Your task to perform on an android device: Go to calendar. Show me events next week Image 0: 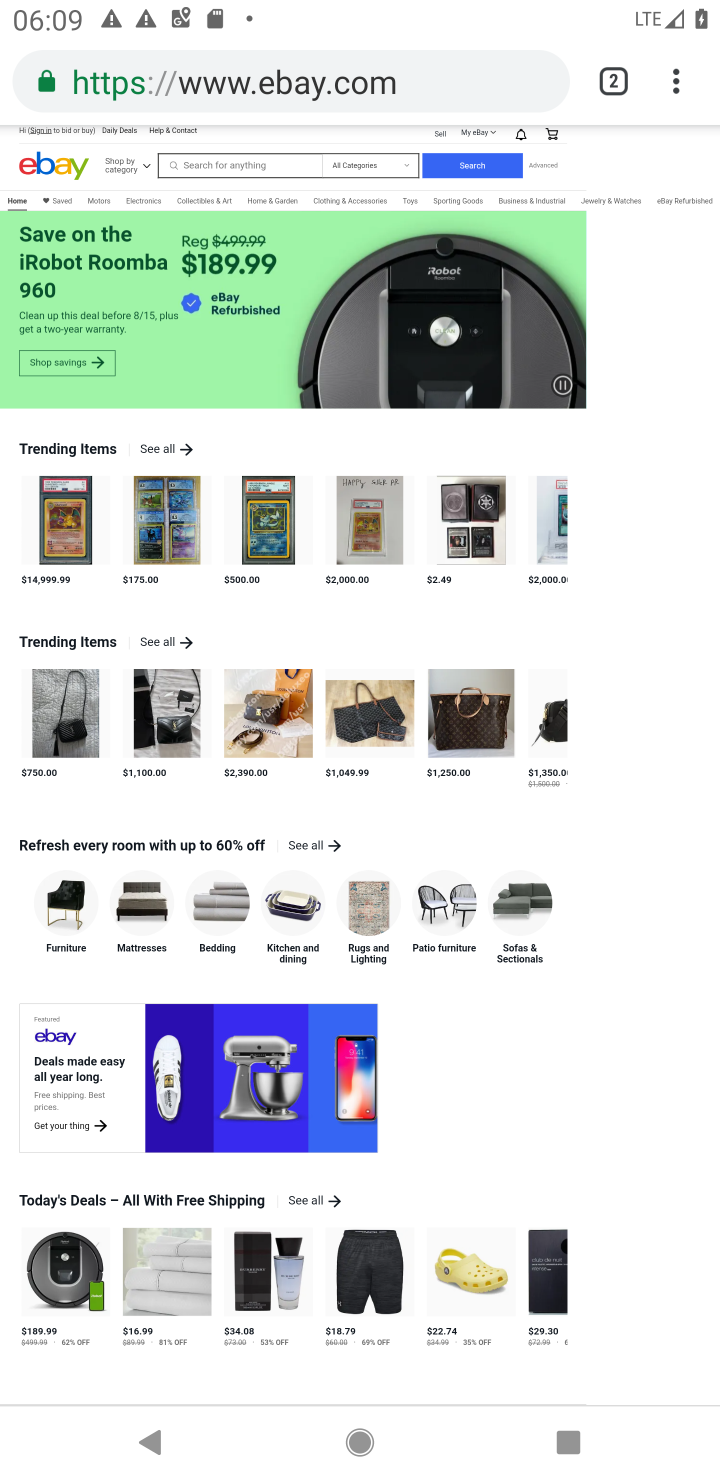
Step 0: press home button
Your task to perform on an android device: Go to calendar. Show me events next week Image 1: 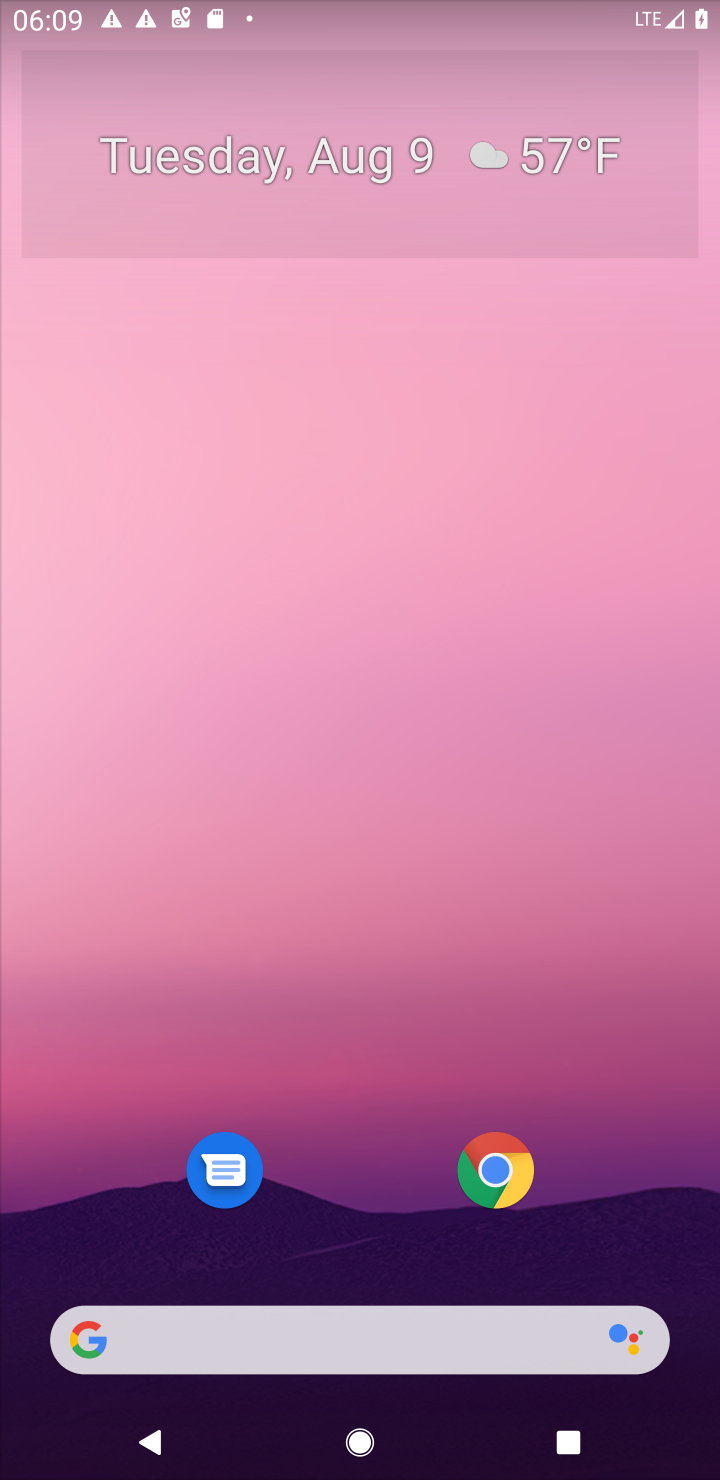
Step 1: drag from (341, 940) to (362, 30)
Your task to perform on an android device: Go to calendar. Show me events next week Image 2: 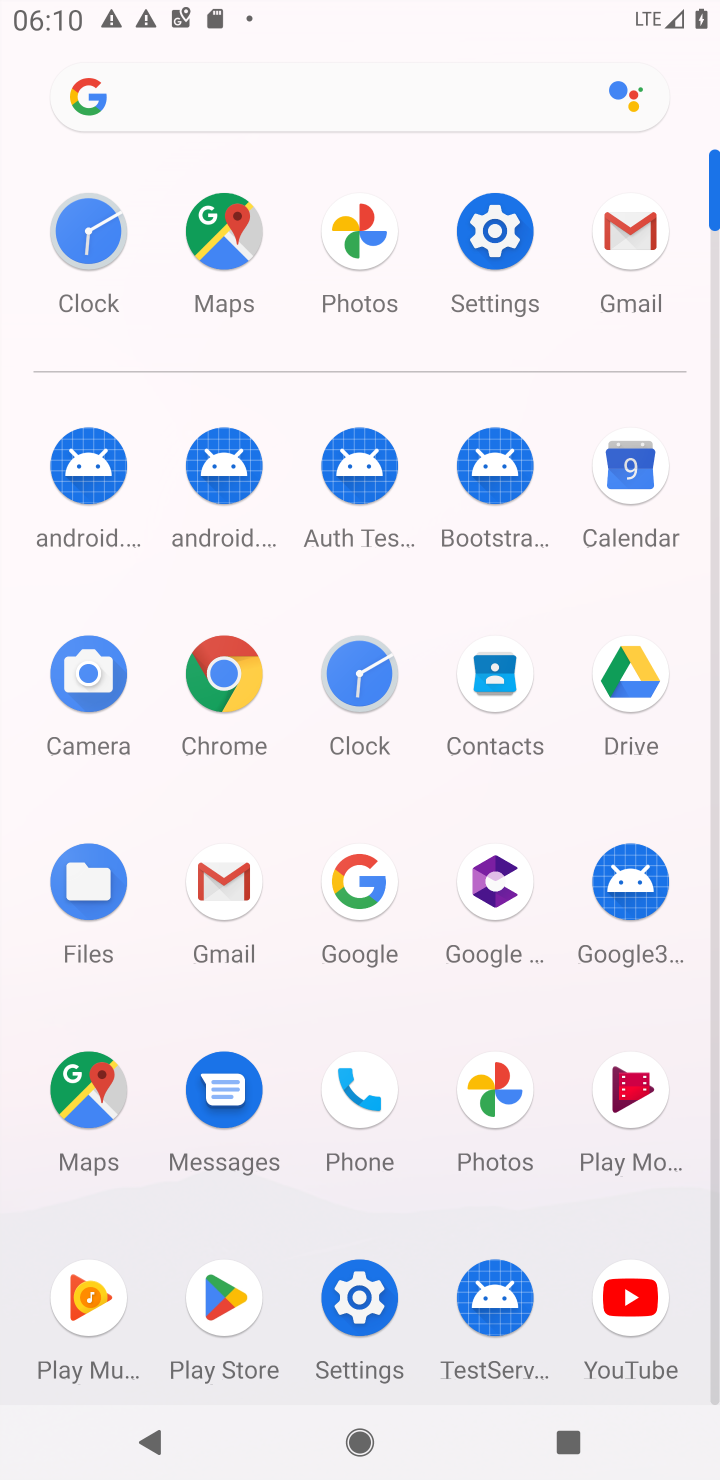
Step 2: click (636, 460)
Your task to perform on an android device: Go to calendar. Show me events next week Image 3: 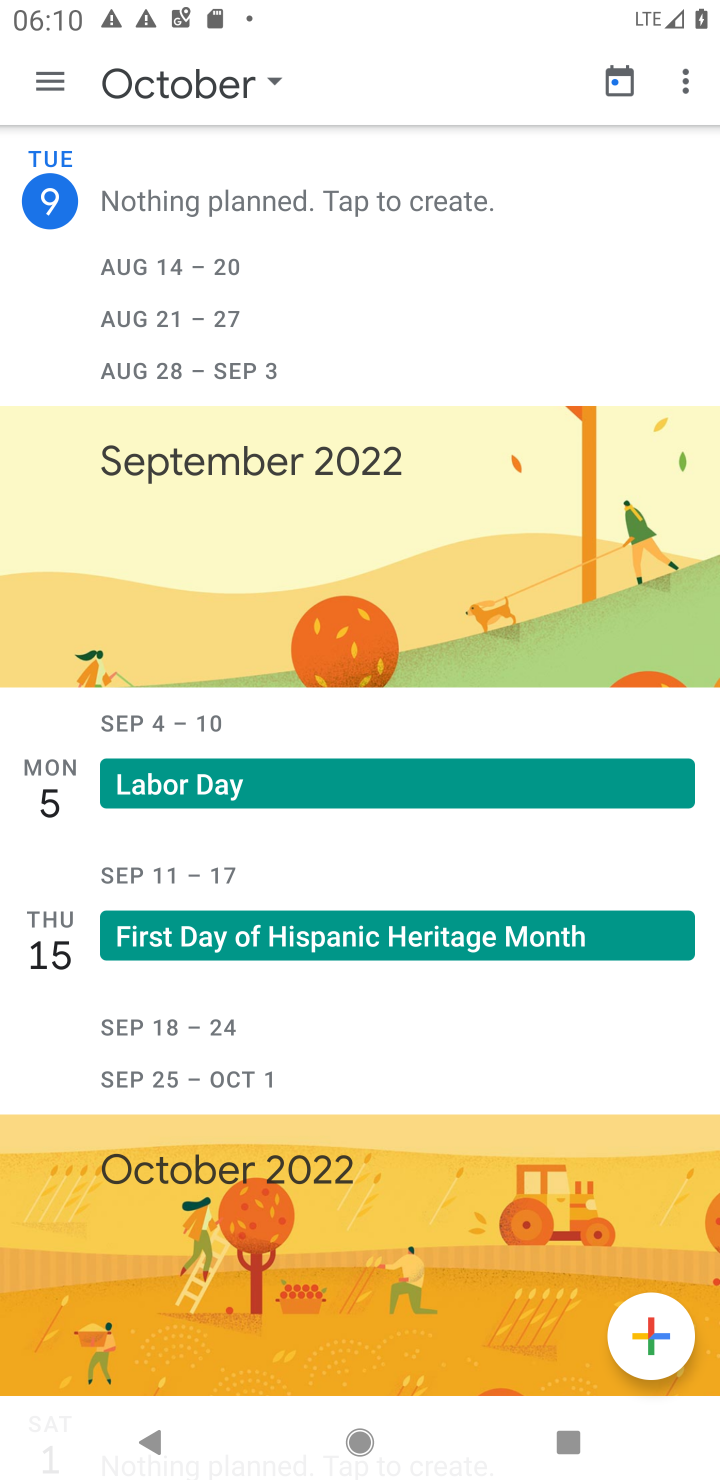
Step 3: click (241, 96)
Your task to perform on an android device: Go to calendar. Show me events next week Image 4: 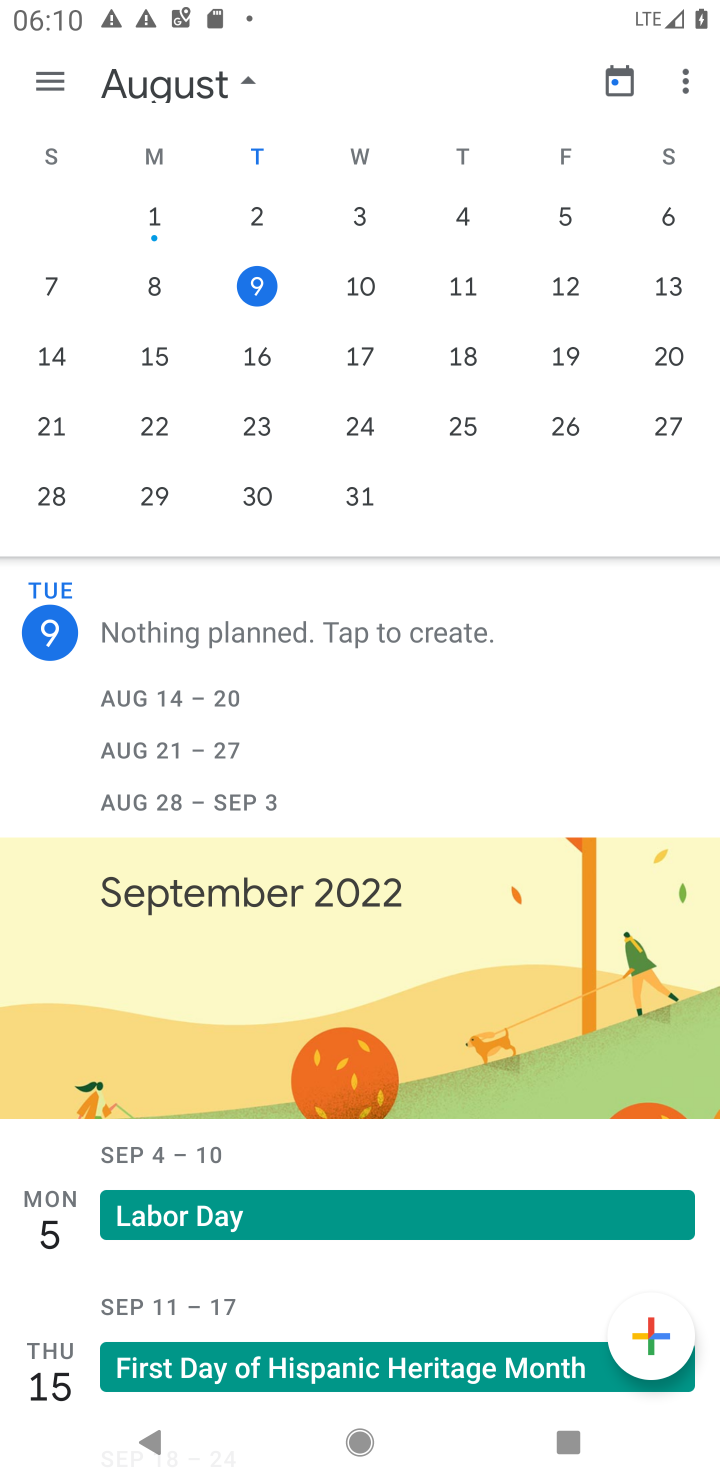
Step 4: click (50, 68)
Your task to perform on an android device: Go to calendar. Show me events next week Image 5: 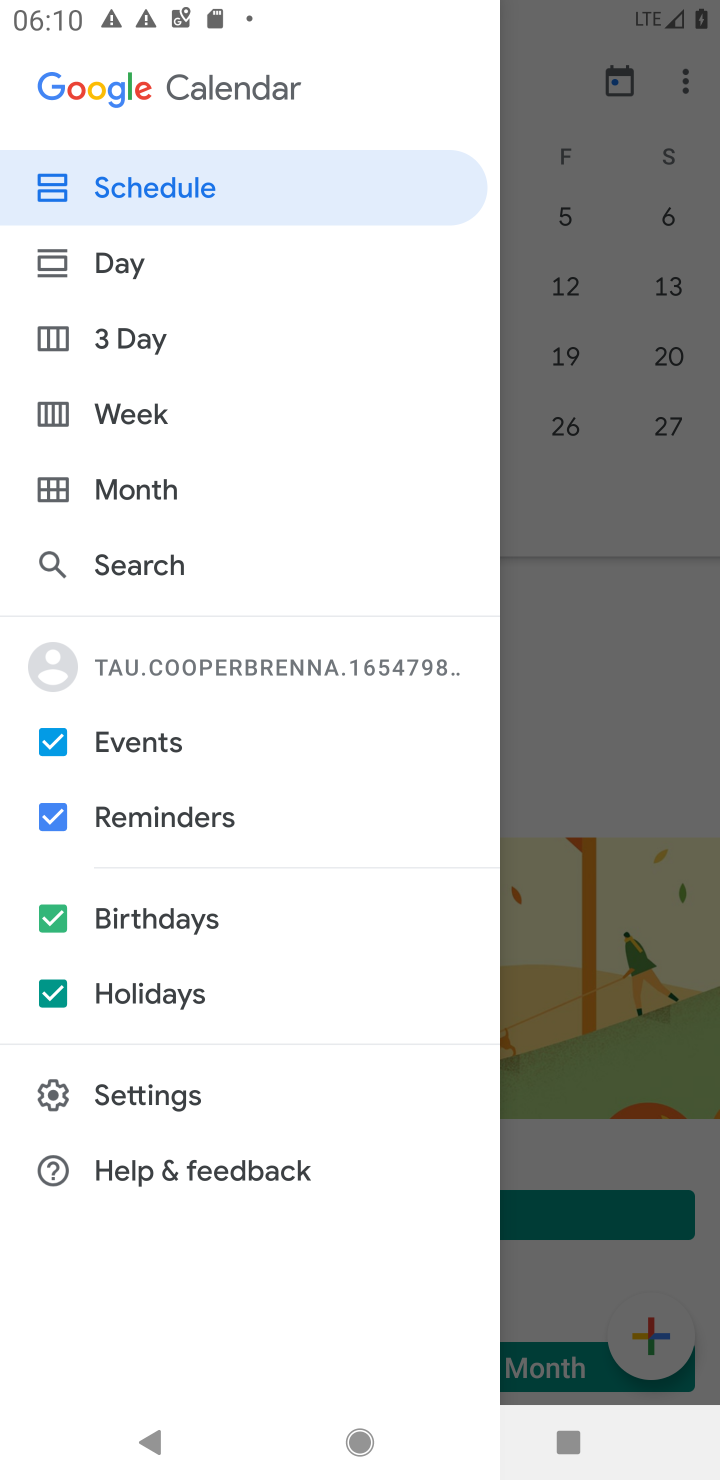
Step 5: click (135, 425)
Your task to perform on an android device: Go to calendar. Show me events next week Image 6: 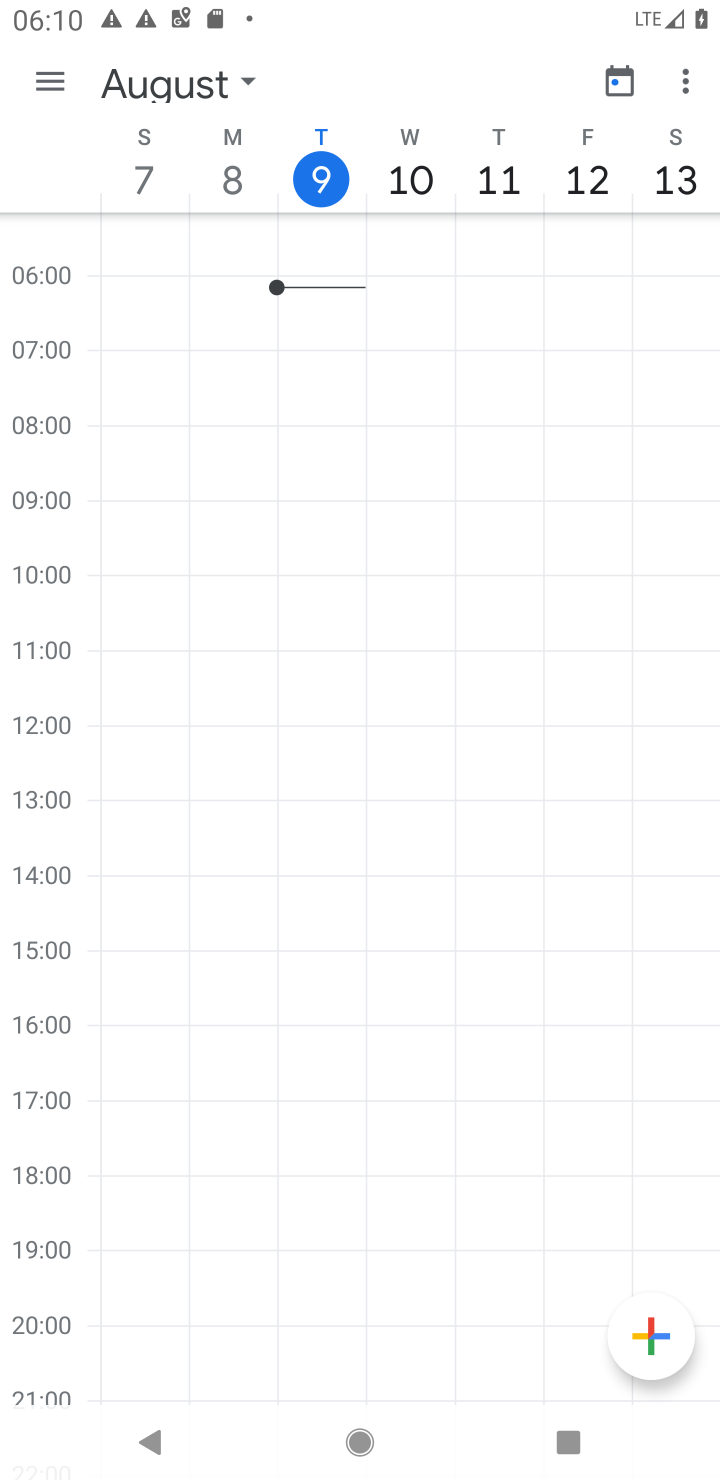
Step 6: task complete